Your task to perform on an android device: Open Youtube and go to the subscriptions tab Image 0: 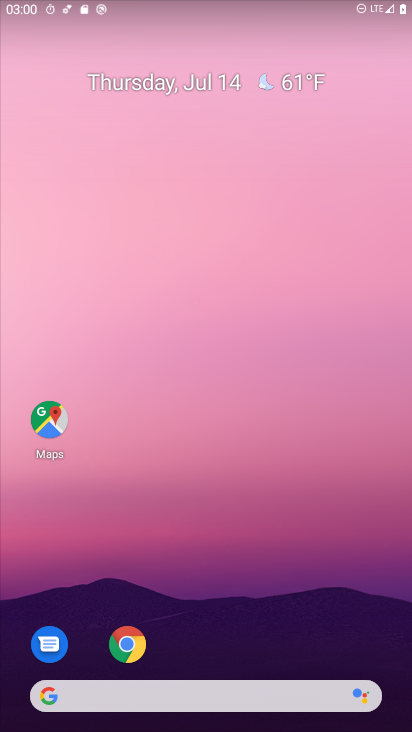
Step 0: drag from (281, 606) to (221, 96)
Your task to perform on an android device: Open Youtube and go to the subscriptions tab Image 1: 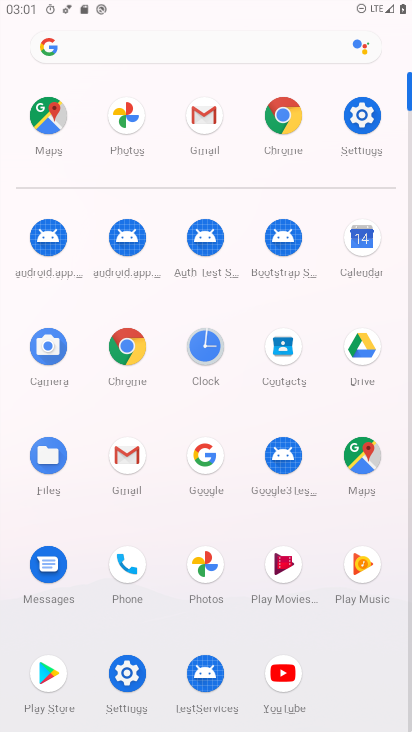
Step 1: click (285, 675)
Your task to perform on an android device: Open Youtube and go to the subscriptions tab Image 2: 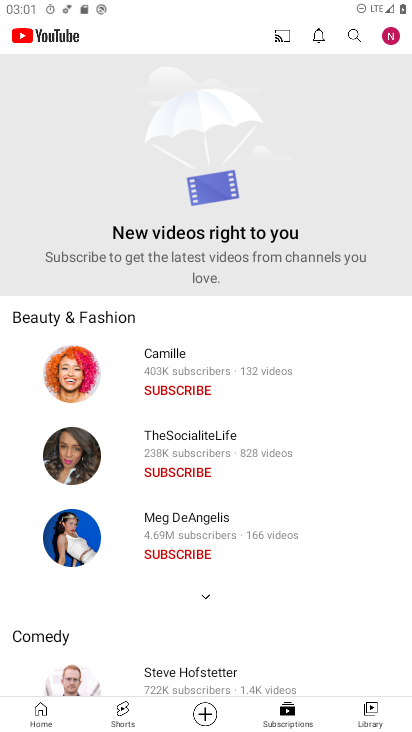
Step 2: click (303, 707)
Your task to perform on an android device: Open Youtube and go to the subscriptions tab Image 3: 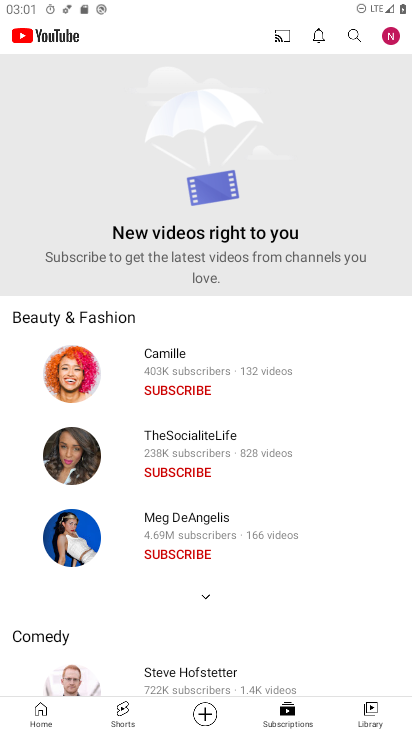
Step 3: task complete